Your task to perform on an android device: toggle airplane mode Image 0: 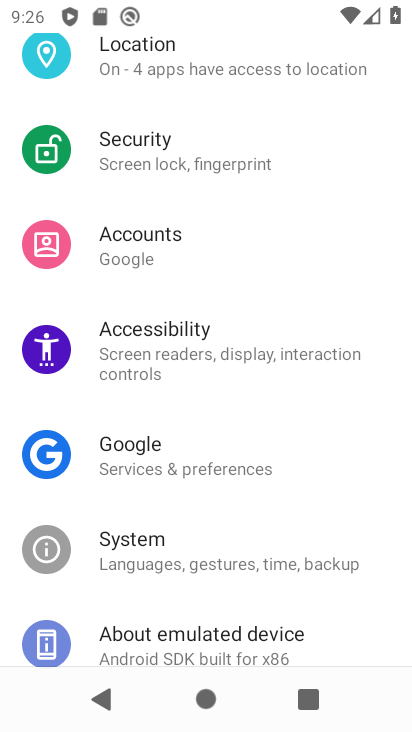
Step 0: drag from (250, 564) to (250, 316)
Your task to perform on an android device: toggle airplane mode Image 1: 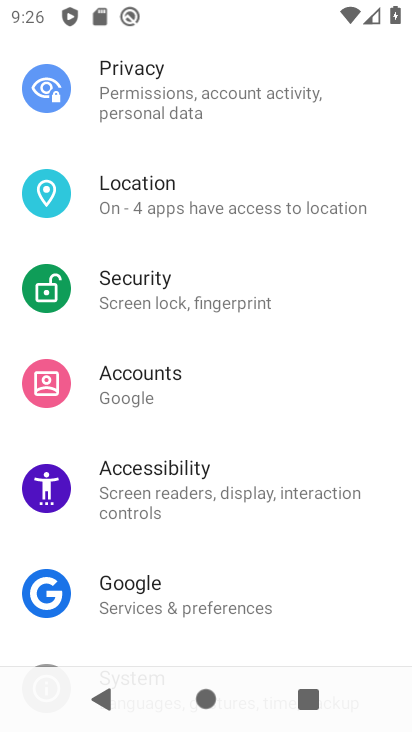
Step 1: drag from (287, 115) to (298, 578)
Your task to perform on an android device: toggle airplane mode Image 2: 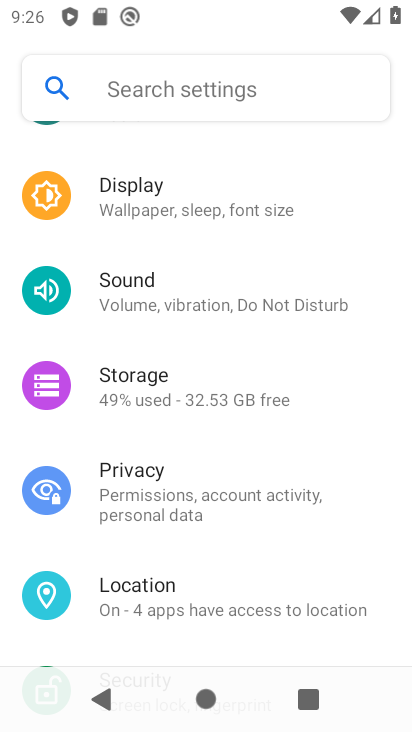
Step 2: drag from (219, 194) to (219, 500)
Your task to perform on an android device: toggle airplane mode Image 3: 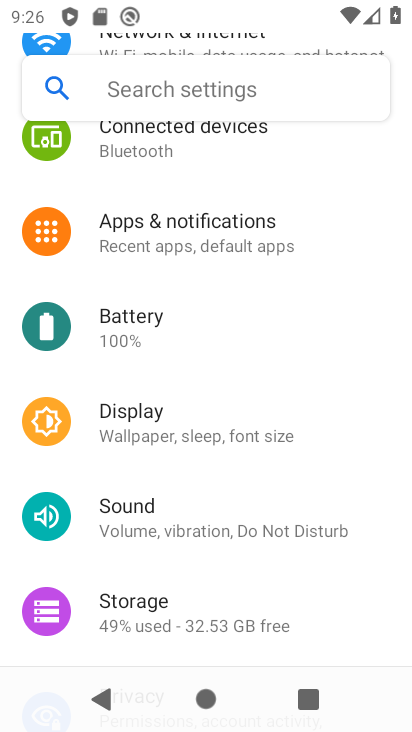
Step 3: drag from (160, 165) to (169, 495)
Your task to perform on an android device: toggle airplane mode Image 4: 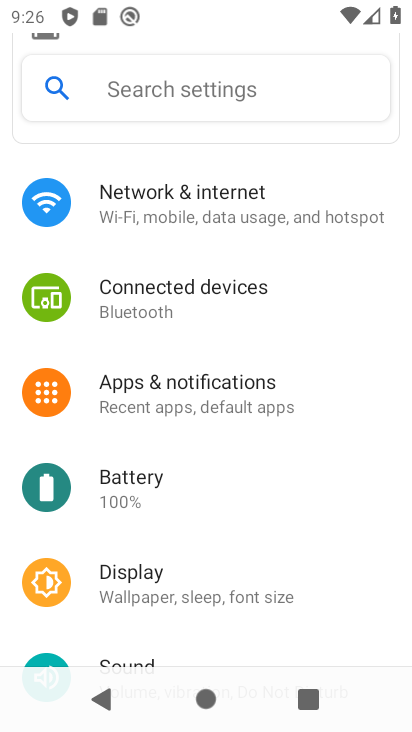
Step 4: click (156, 214)
Your task to perform on an android device: toggle airplane mode Image 5: 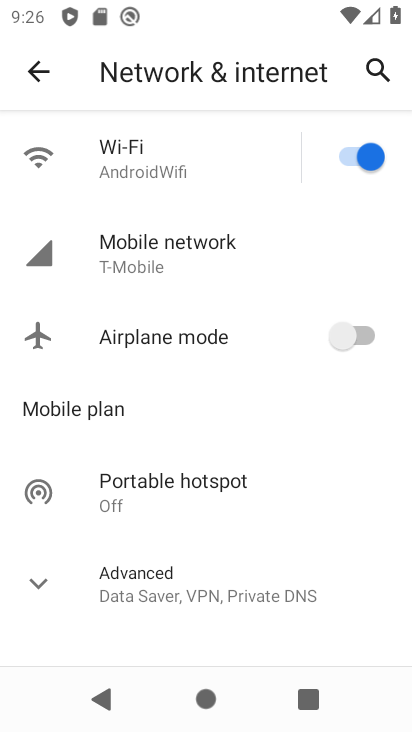
Step 5: click (344, 335)
Your task to perform on an android device: toggle airplane mode Image 6: 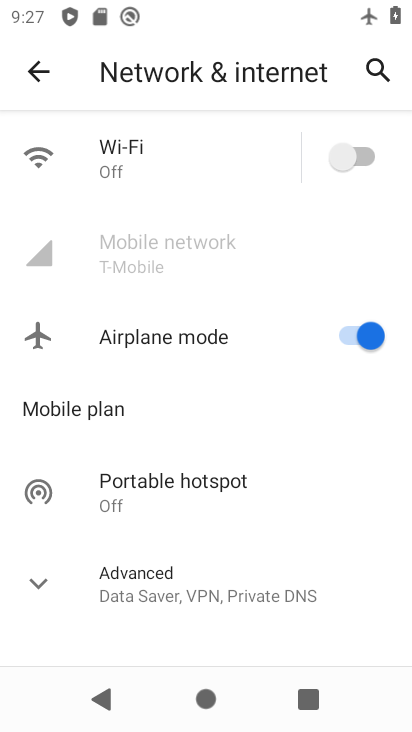
Step 6: task complete